Your task to perform on an android device: Go to accessibility settings Image 0: 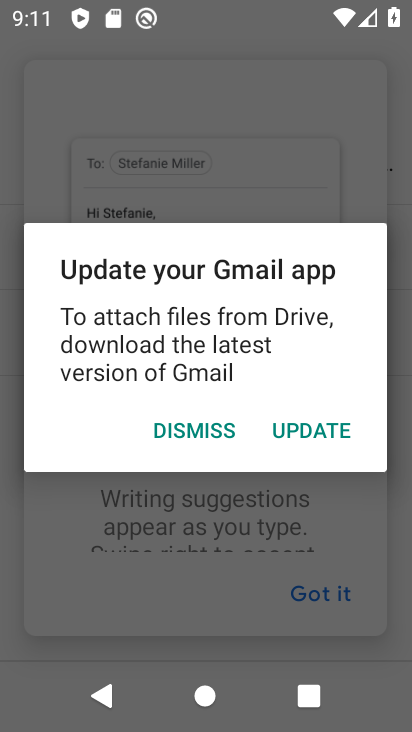
Step 0: press home button
Your task to perform on an android device: Go to accessibility settings Image 1: 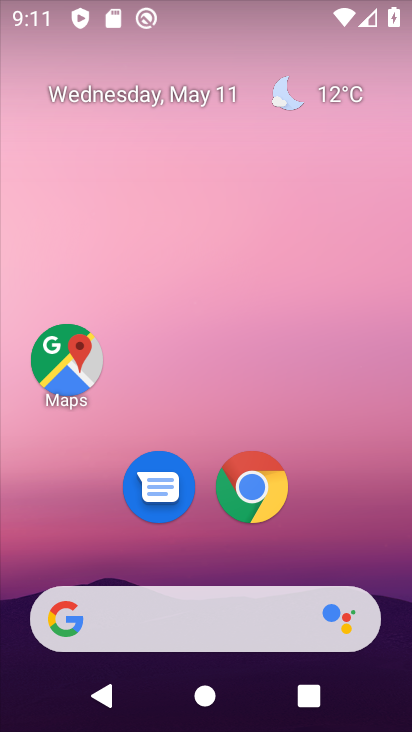
Step 1: drag from (313, 522) to (325, 127)
Your task to perform on an android device: Go to accessibility settings Image 2: 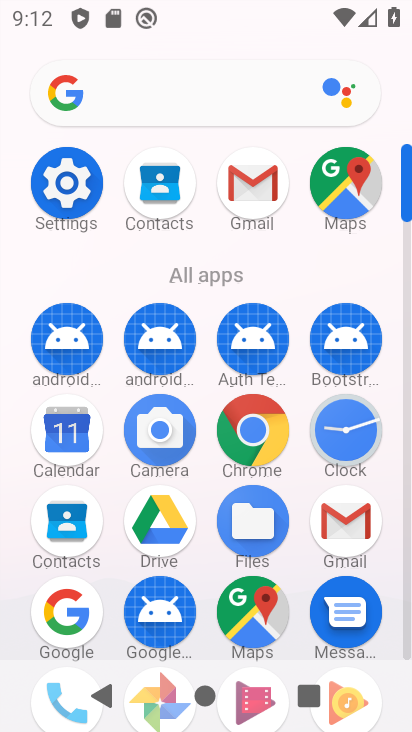
Step 2: click (67, 181)
Your task to perform on an android device: Go to accessibility settings Image 3: 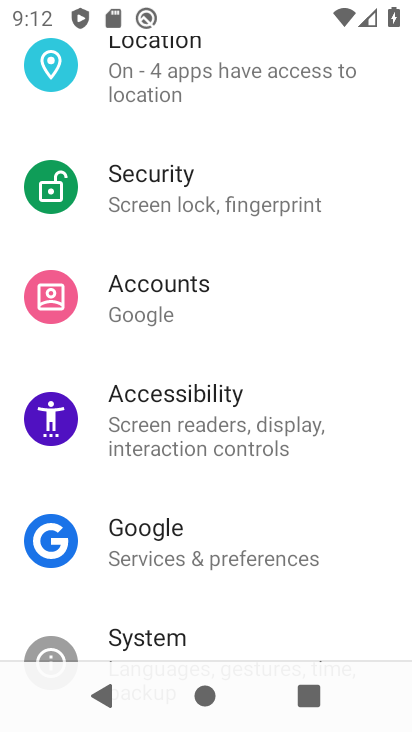
Step 3: click (197, 396)
Your task to perform on an android device: Go to accessibility settings Image 4: 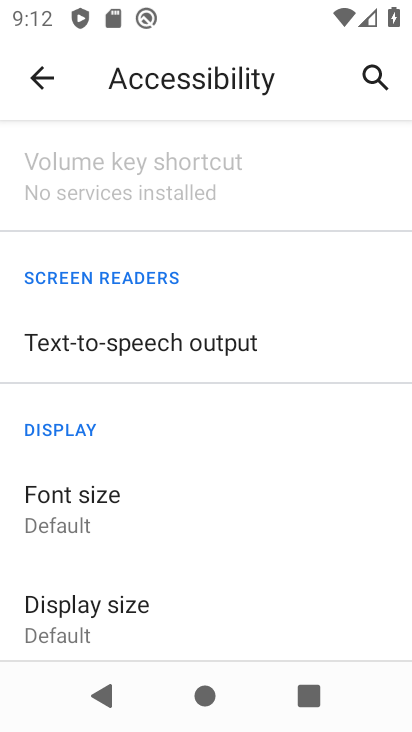
Step 4: task complete